Your task to perform on an android device: Check the weather Image 0: 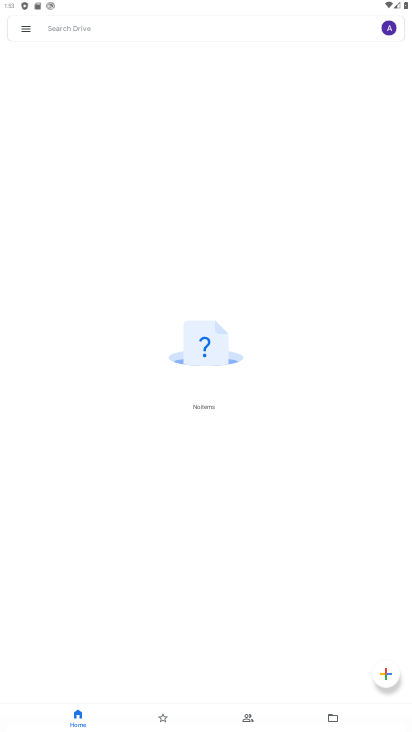
Step 0: press home button
Your task to perform on an android device: Check the weather Image 1: 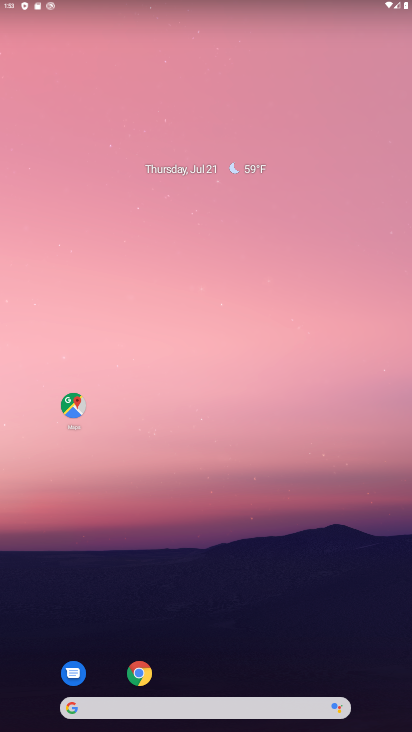
Step 1: drag from (205, 708) to (314, 138)
Your task to perform on an android device: Check the weather Image 2: 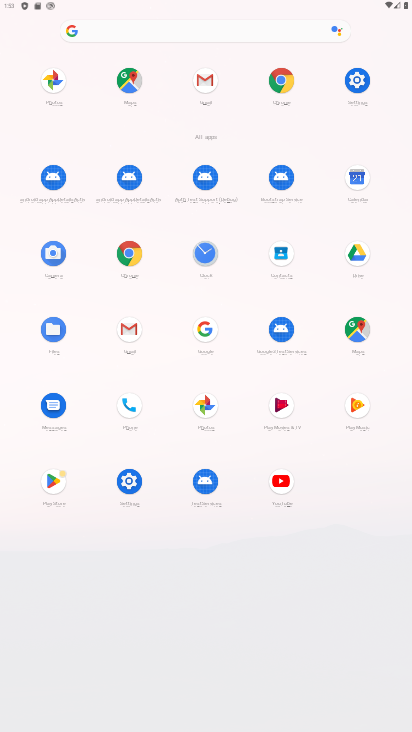
Step 2: click (204, 327)
Your task to perform on an android device: Check the weather Image 3: 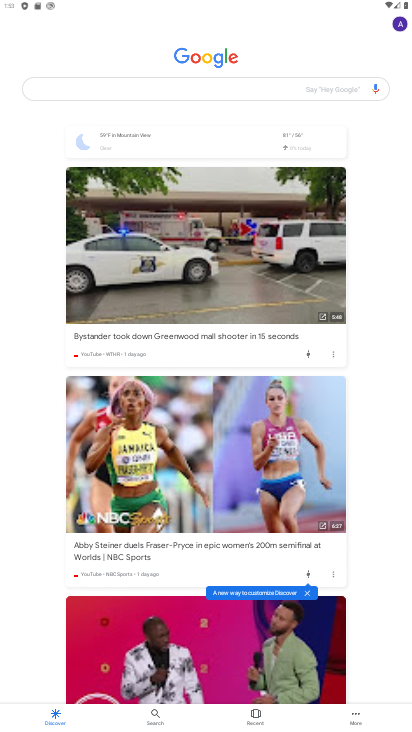
Step 3: click (276, 140)
Your task to perform on an android device: Check the weather Image 4: 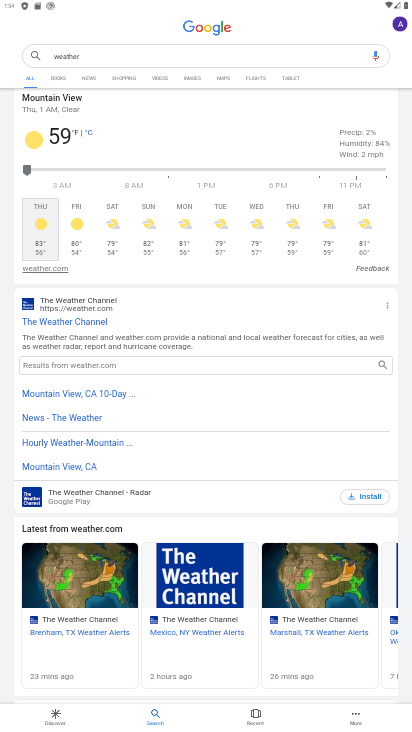
Step 4: task complete